Your task to perform on an android device: Go to wifi settings Image 0: 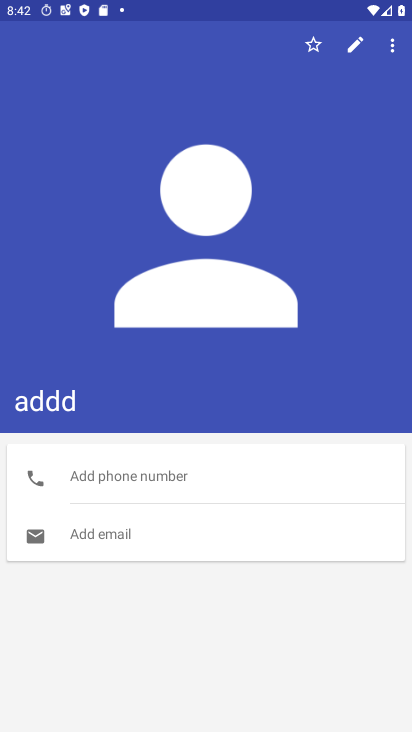
Step 0: drag from (236, 554) to (262, 251)
Your task to perform on an android device: Go to wifi settings Image 1: 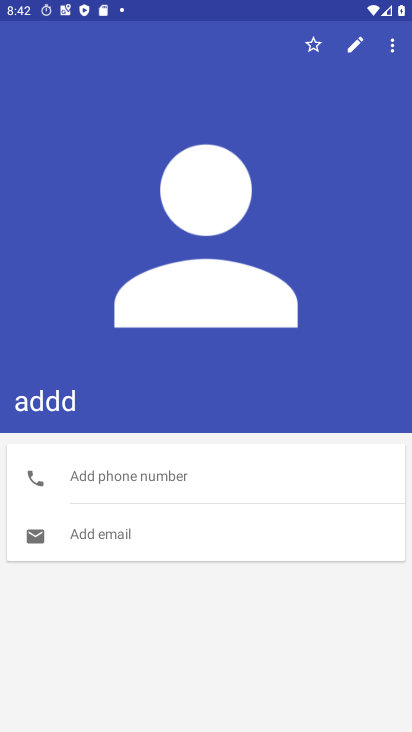
Step 1: drag from (154, 610) to (213, 176)
Your task to perform on an android device: Go to wifi settings Image 2: 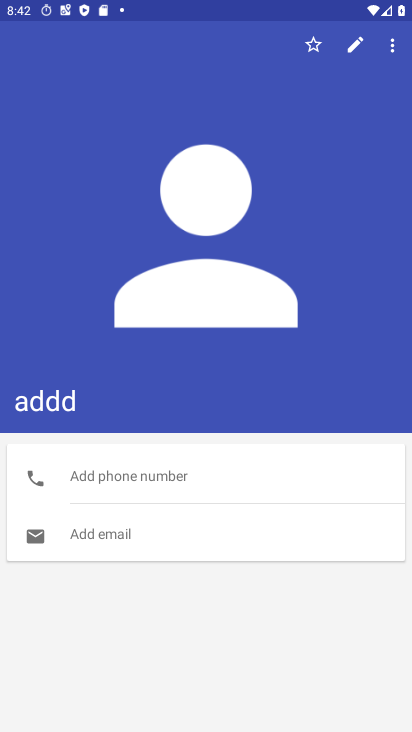
Step 2: press home button
Your task to perform on an android device: Go to wifi settings Image 3: 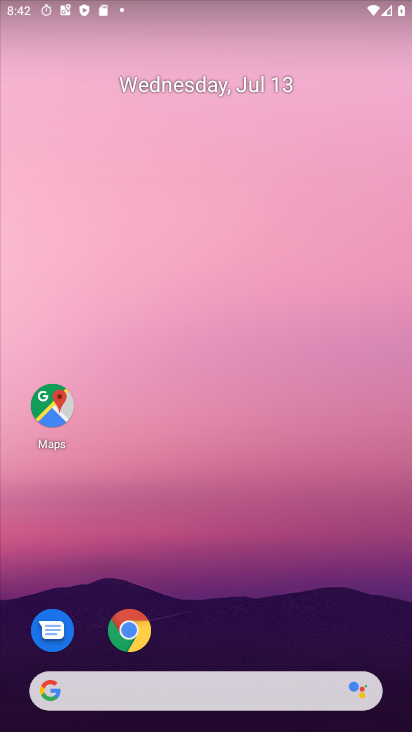
Step 3: drag from (192, 160) to (41, 41)
Your task to perform on an android device: Go to wifi settings Image 4: 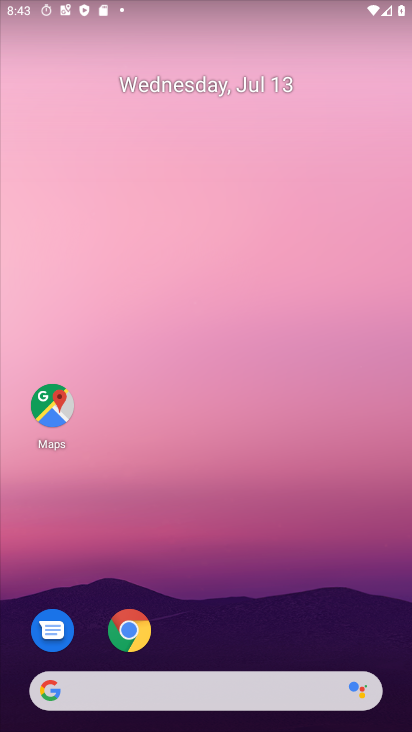
Step 4: drag from (183, 411) to (222, 107)
Your task to perform on an android device: Go to wifi settings Image 5: 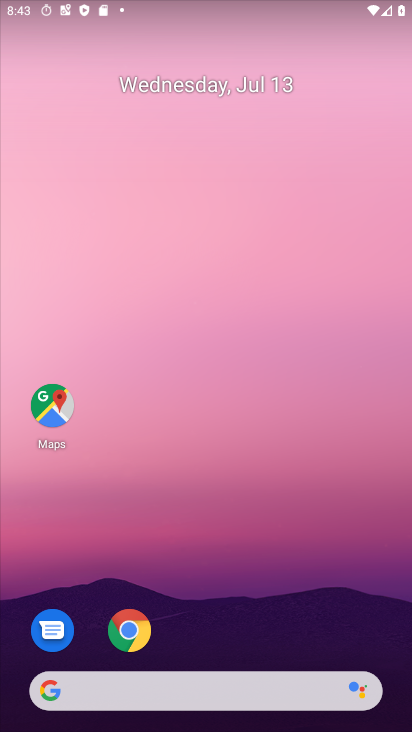
Step 5: drag from (203, 637) to (225, 56)
Your task to perform on an android device: Go to wifi settings Image 6: 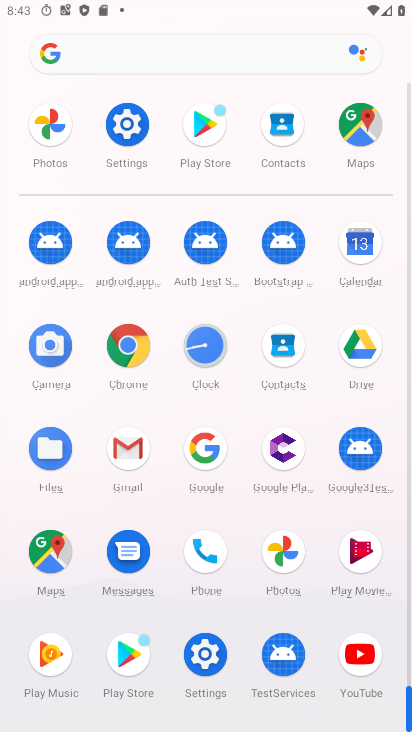
Step 6: click (120, 111)
Your task to perform on an android device: Go to wifi settings Image 7: 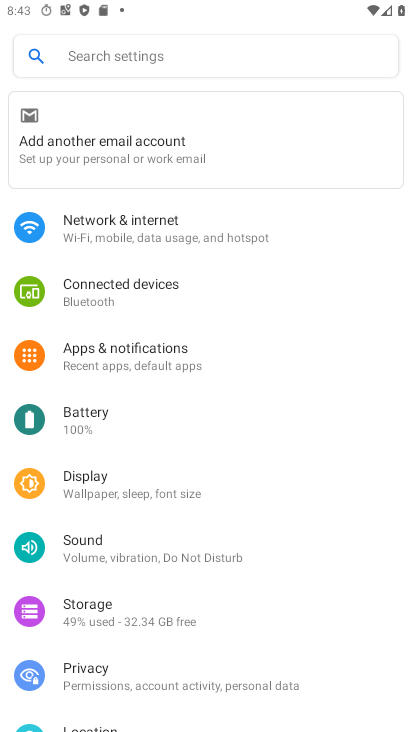
Step 7: click (140, 233)
Your task to perform on an android device: Go to wifi settings Image 8: 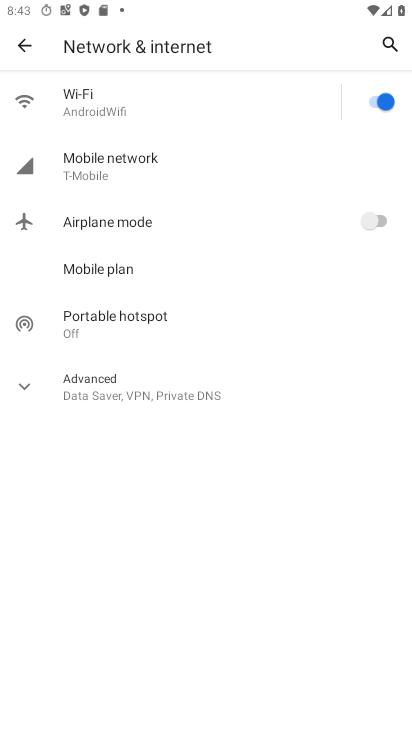
Step 8: click (121, 113)
Your task to perform on an android device: Go to wifi settings Image 9: 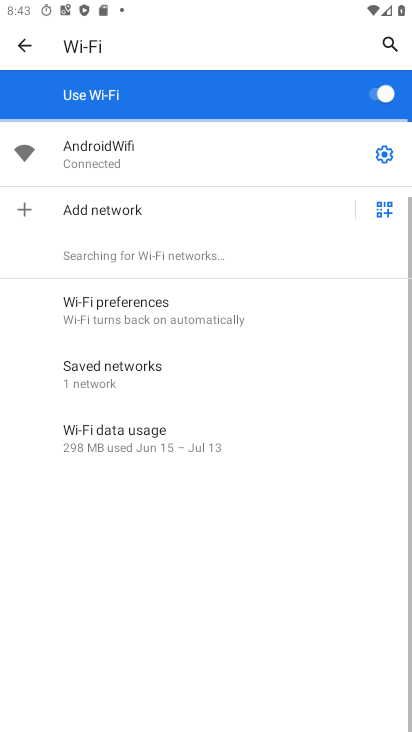
Step 9: click (386, 147)
Your task to perform on an android device: Go to wifi settings Image 10: 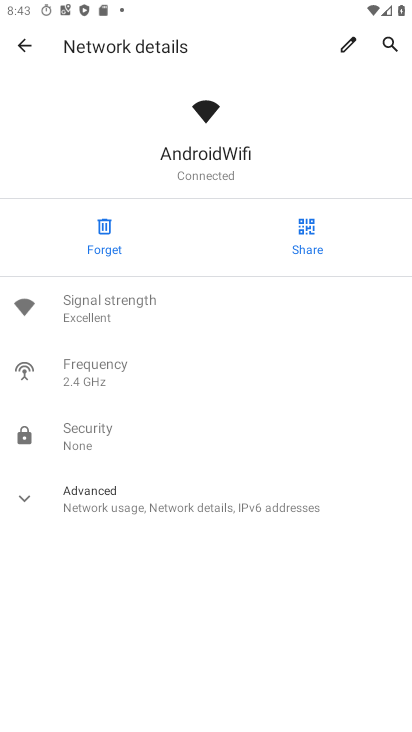
Step 10: task complete